Your task to perform on an android device: What is the news today? Image 0: 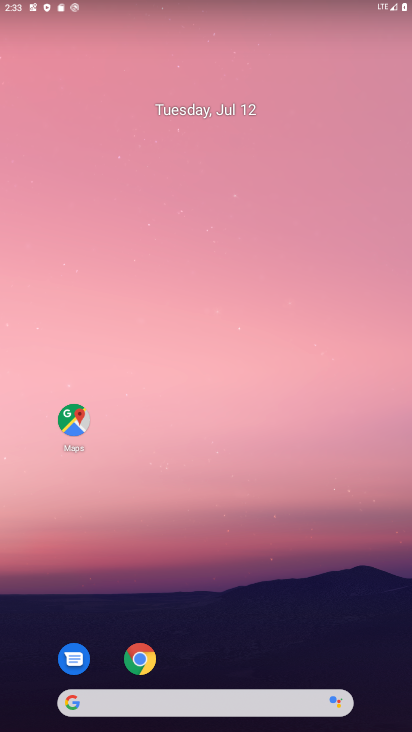
Step 0: click (3, 275)
Your task to perform on an android device: What is the news today? Image 1: 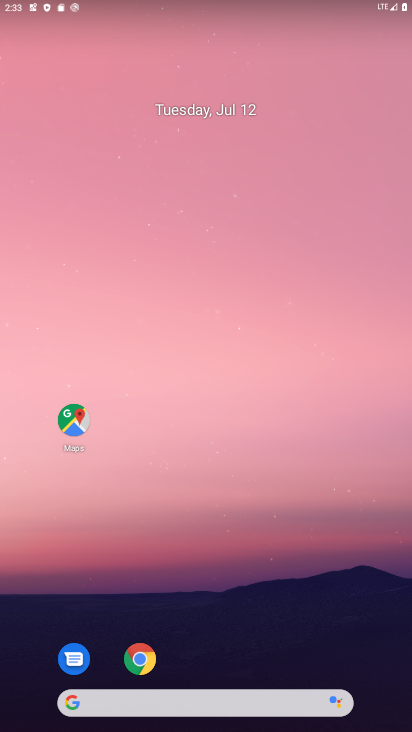
Step 1: click (257, 317)
Your task to perform on an android device: What is the news today? Image 2: 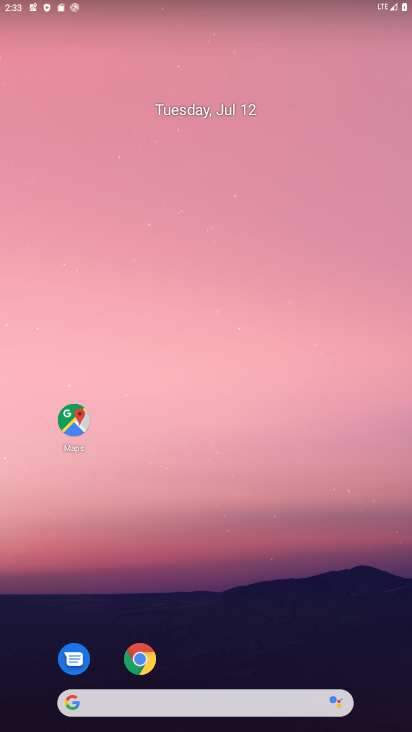
Step 2: click (1, 259)
Your task to perform on an android device: What is the news today? Image 3: 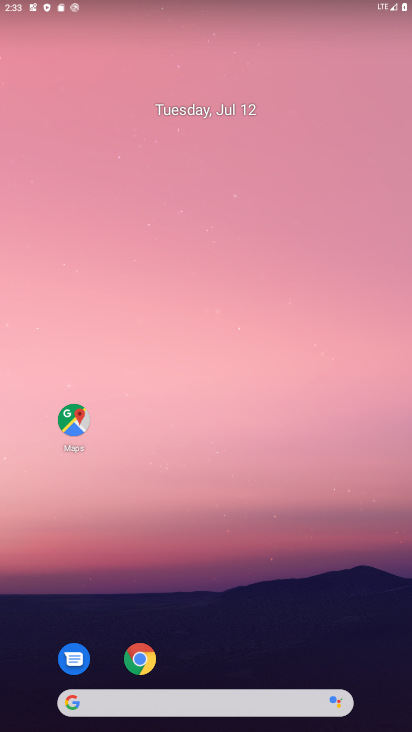
Step 3: drag from (411, 298) to (403, 372)
Your task to perform on an android device: What is the news today? Image 4: 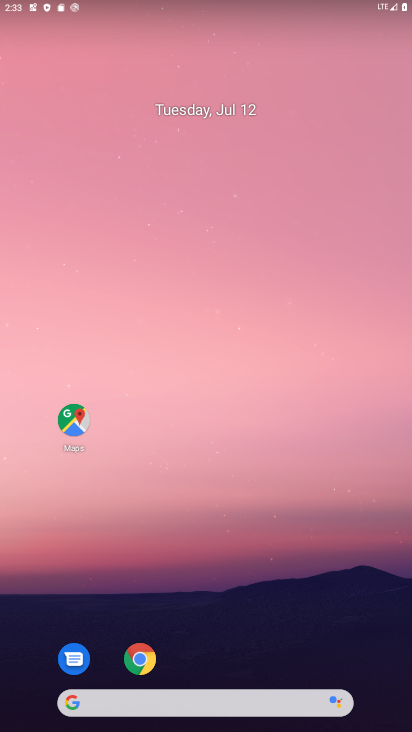
Step 4: click (3, 254)
Your task to perform on an android device: What is the news today? Image 5: 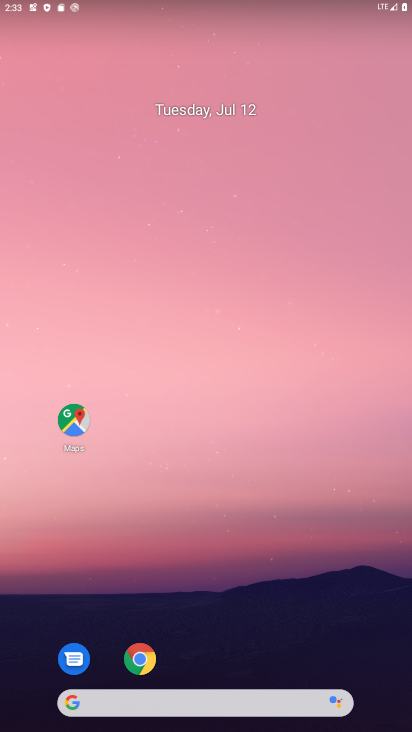
Step 5: click (370, 284)
Your task to perform on an android device: What is the news today? Image 6: 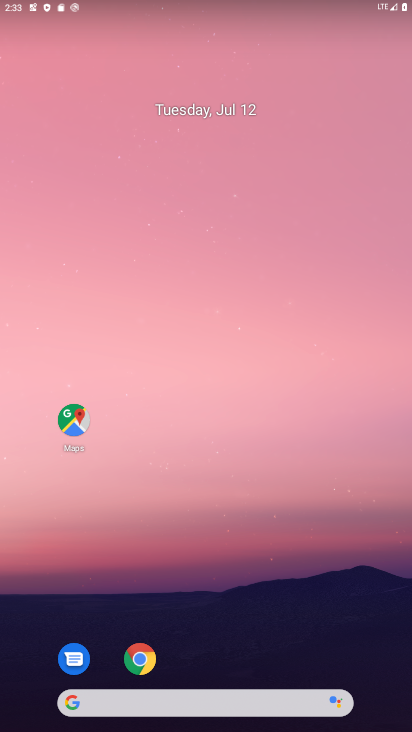
Step 6: drag from (231, 731) to (231, 697)
Your task to perform on an android device: What is the news today? Image 7: 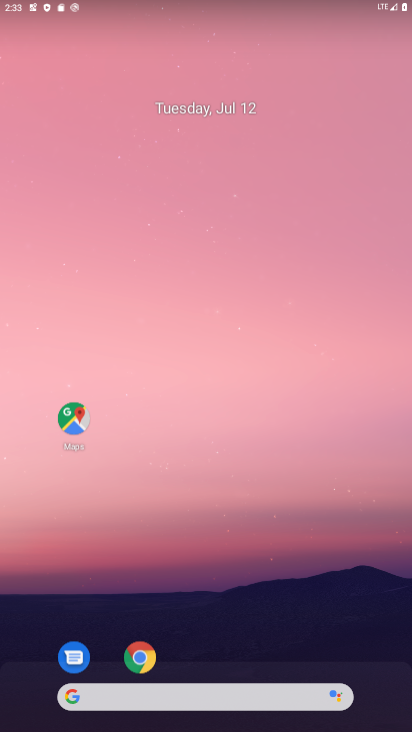
Step 7: click (232, 303)
Your task to perform on an android device: What is the news today? Image 8: 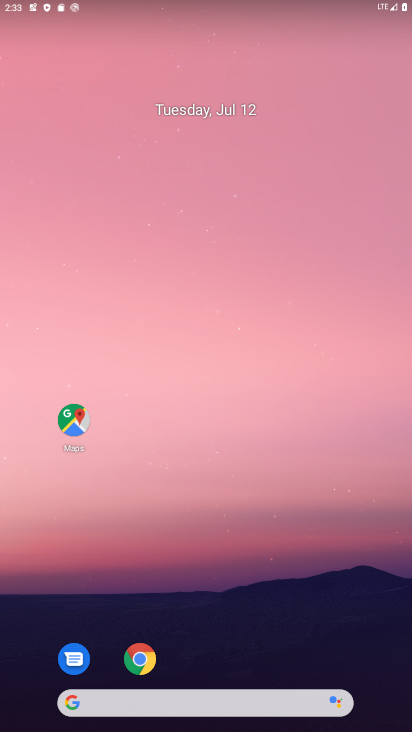
Step 8: drag from (226, 730) to (213, 82)
Your task to perform on an android device: What is the news today? Image 9: 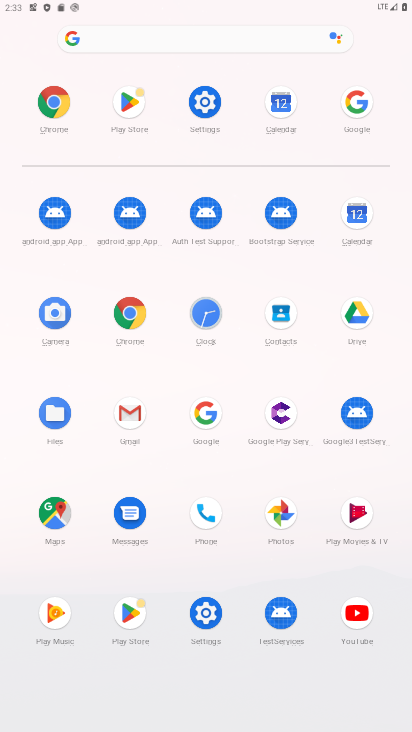
Step 9: click (207, 414)
Your task to perform on an android device: What is the news today? Image 10: 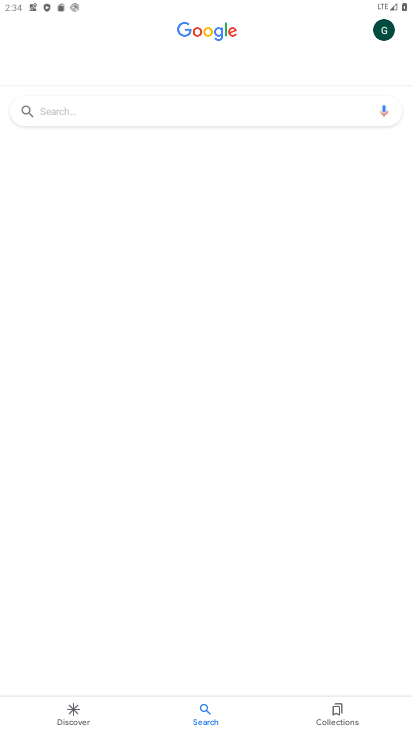
Step 10: drag from (207, 633) to (211, 225)
Your task to perform on an android device: What is the news today? Image 11: 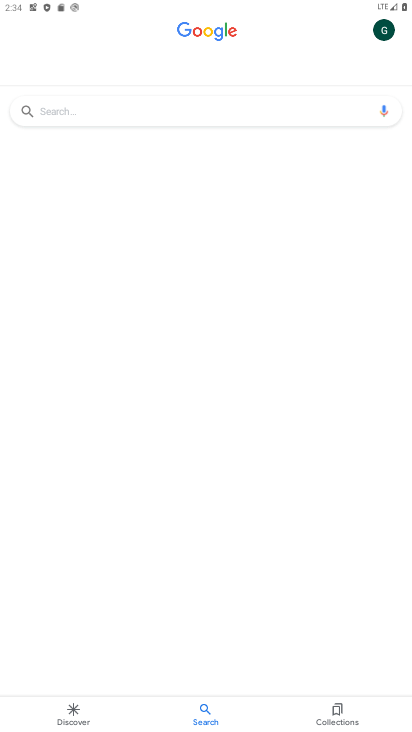
Step 11: click (67, 713)
Your task to perform on an android device: What is the news today? Image 12: 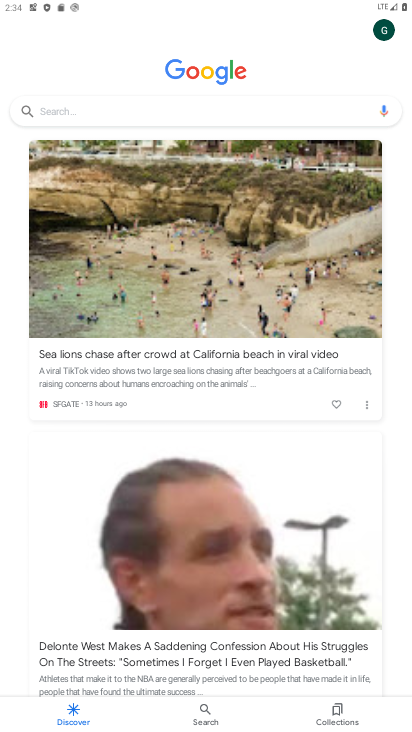
Step 12: task complete